Your task to perform on an android device: Open network settings Image 0: 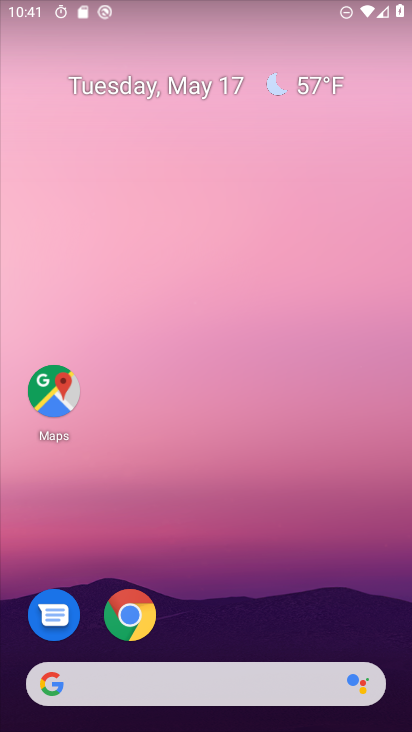
Step 0: drag from (284, 586) to (195, 49)
Your task to perform on an android device: Open network settings Image 1: 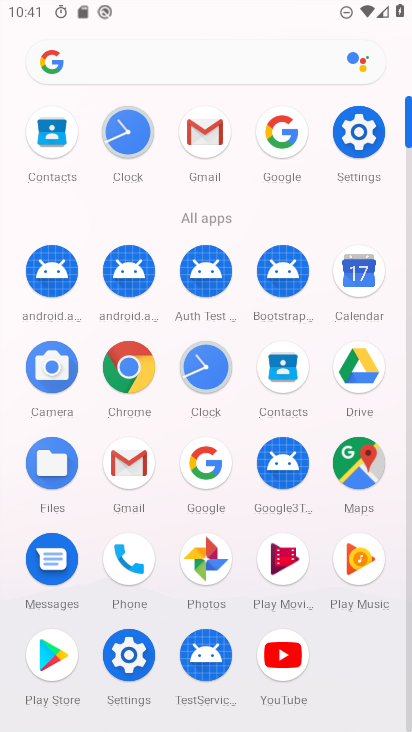
Step 1: click (364, 133)
Your task to perform on an android device: Open network settings Image 2: 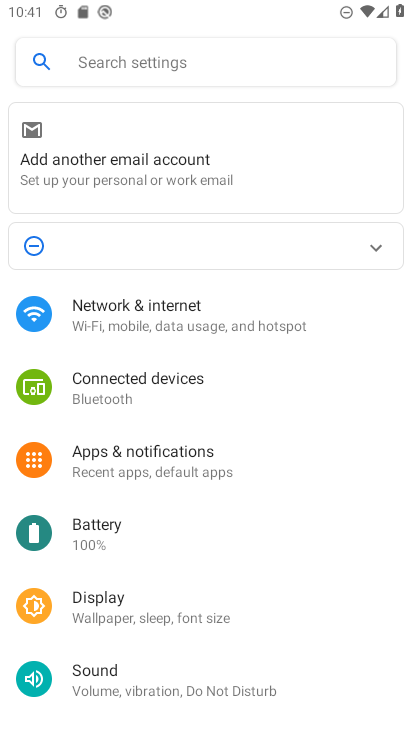
Step 2: click (182, 318)
Your task to perform on an android device: Open network settings Image 3: 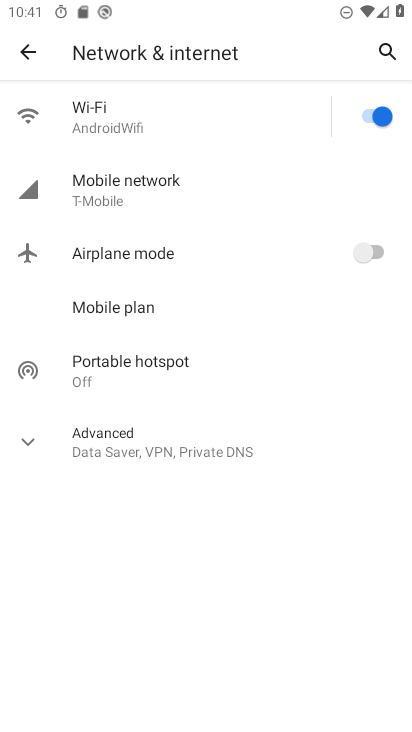
Step 3: task complete